Your task to perform on an android device: open chrome privacy settings Image 0: 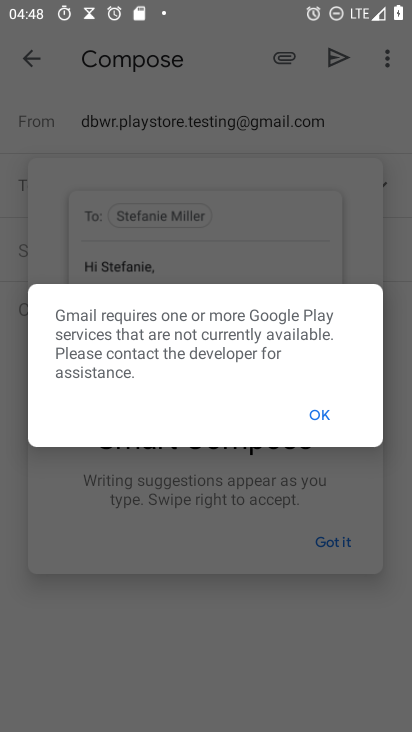
Step 0: press home button
Your task to perform on an android device: open chrome privacy settings Image 1: 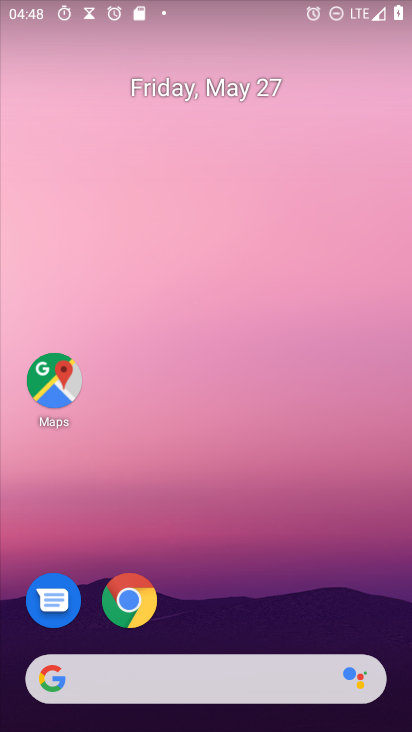
Step 1: click (132, 605)
Your task to perform on an android device: open chrome privacy settings Image 2: 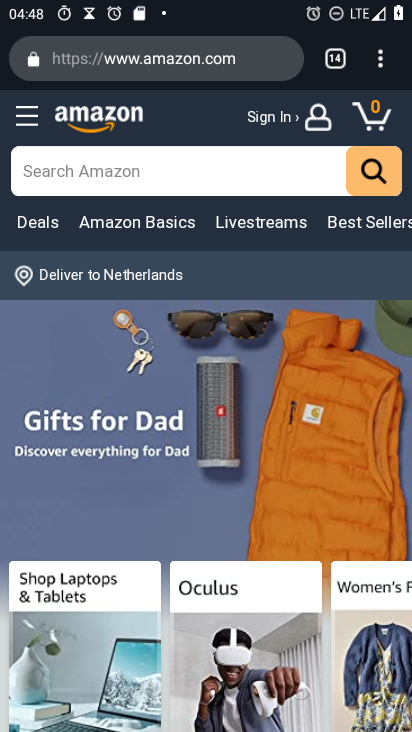
Step 2: click (381, 62)
Your task to perform on an android device: open chrome privacy settings Image 3: 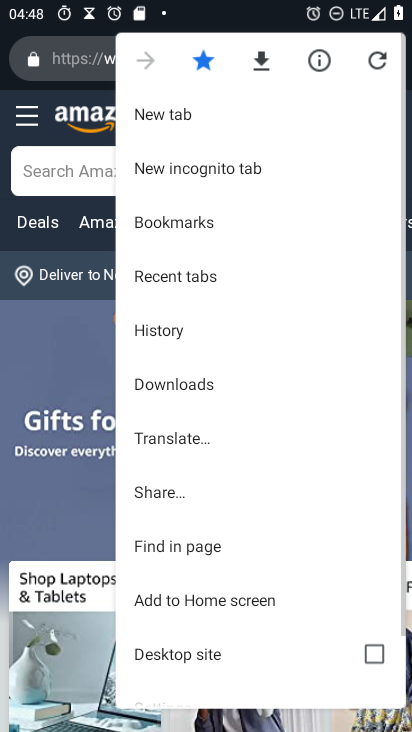
Step 3: drag from (175, 644) to (179, 233)
Your task to perform on an android device: open chrome privacy settings Image 4: 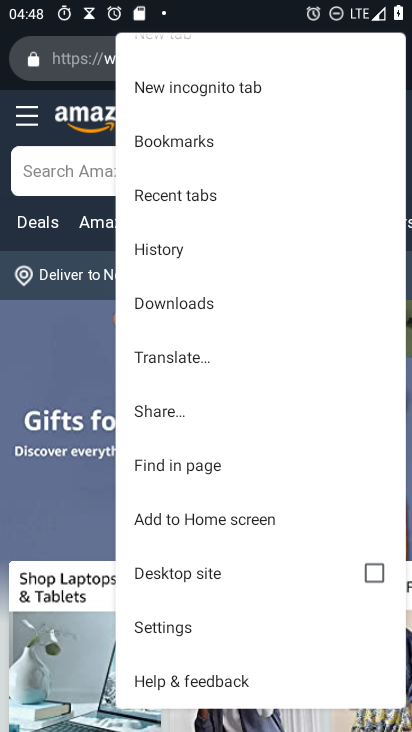
Step 4: click (167, 625)
Your task to perform on an android device: open chrome privacy settings Image 5: 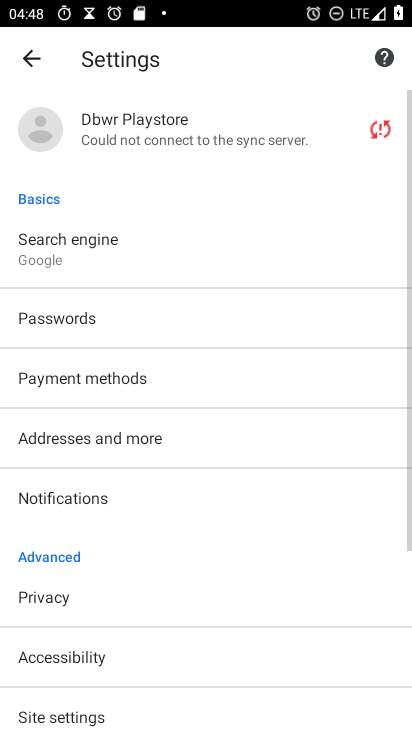
Step 5: click (42, 596)
Your task to perform on an android device: open chrome privacy settings Image 6: 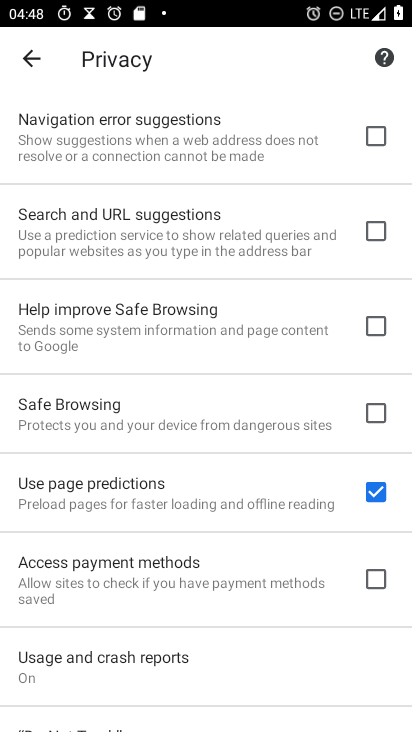
Step 6: task complete